Your task to perform on an android device: Is it going to rain today? Image 0: 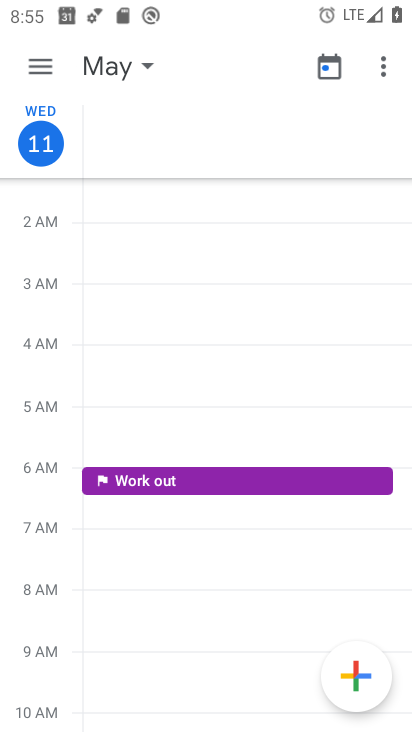
Step 0: press home button
Your task to perform on an android device: Is it going to rain today? Image 1: 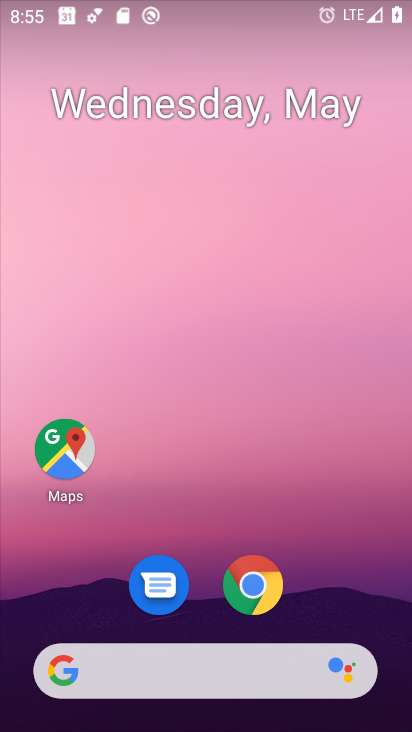
Step 1: click (188, 676)
Your task to perform on an android device: Is it going to rain today? Image 2: 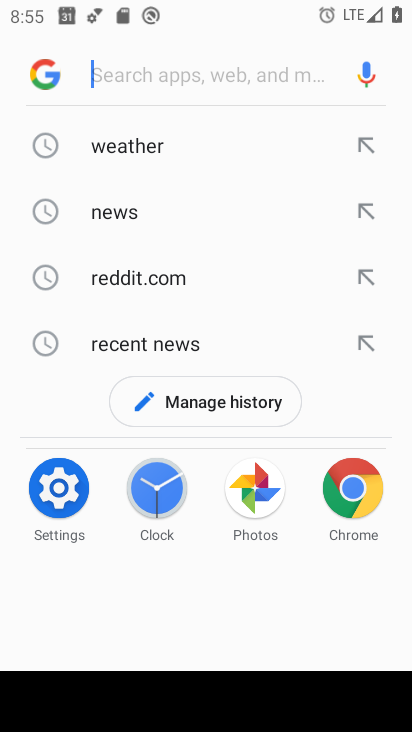
Step 2: click (91, 138)
Your task to perform on an android device: Is it going to rain today? Image 3: 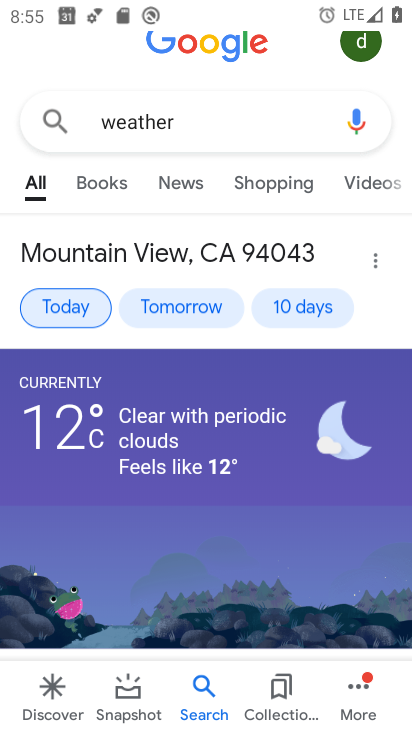
Step 3: click (90, 306)
Your task to perform on an android device: Is it going to rain today? Image 4: 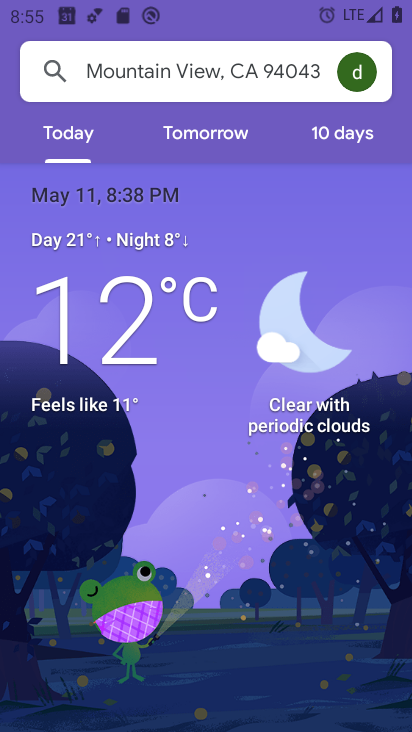
Step 4: task complete